Your task to perform on an android device: Go to display settings Image 0: 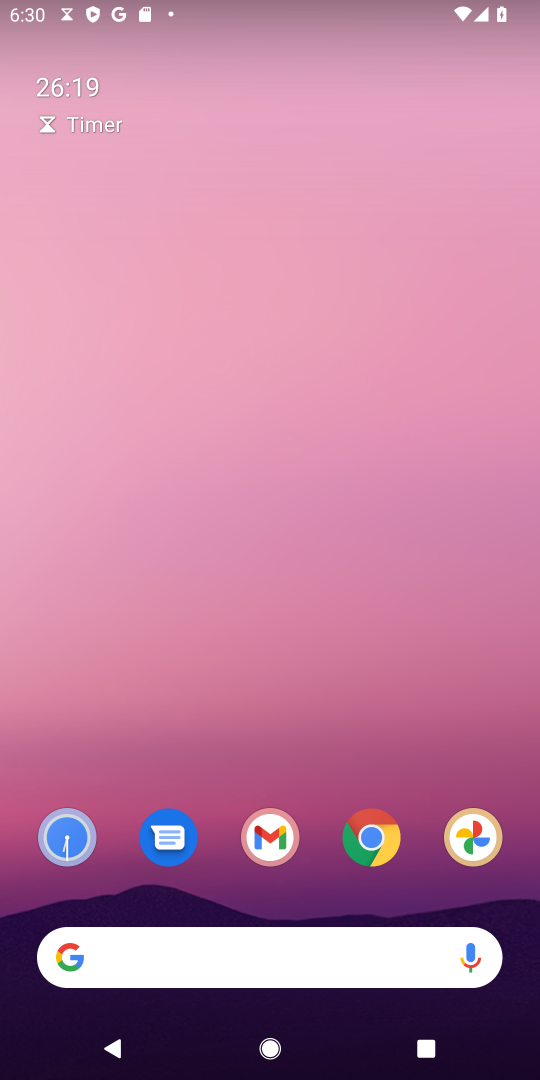
Step 0: press home button
Your task to perform on an android device: Go to display settings Image 1: 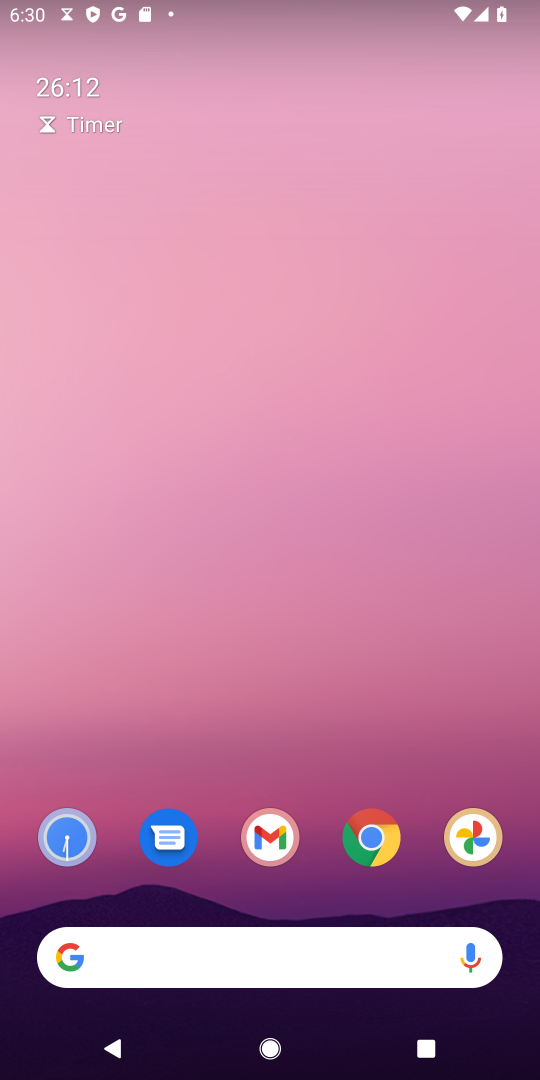
Step 1: drag from (323, 778) to (344, 47)
Your task to perform on an android device: Go to display settings Image 2: 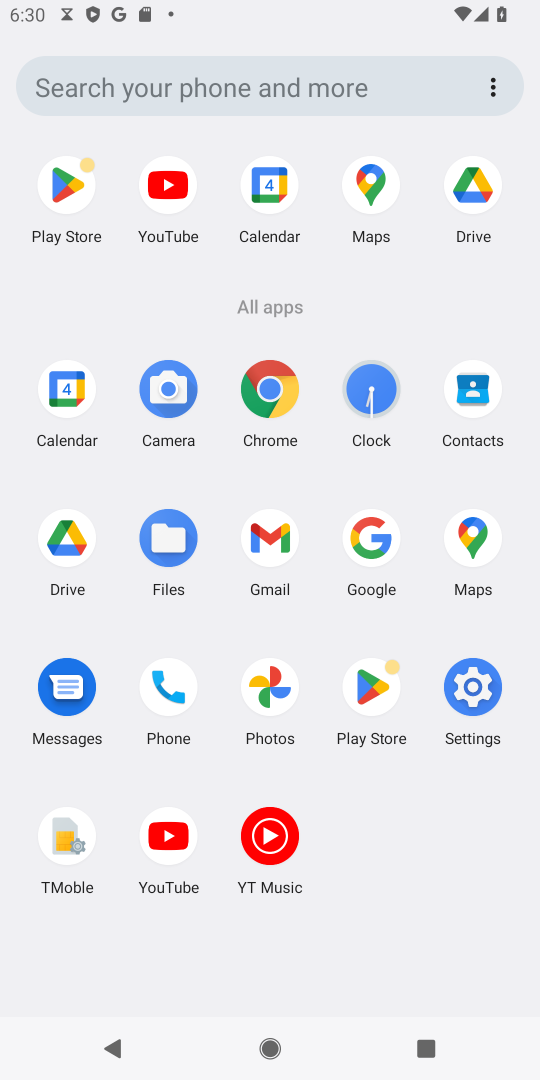
Step 2: click (469, 681)
Your task to perform on an android device: Go to display settings Image 3: 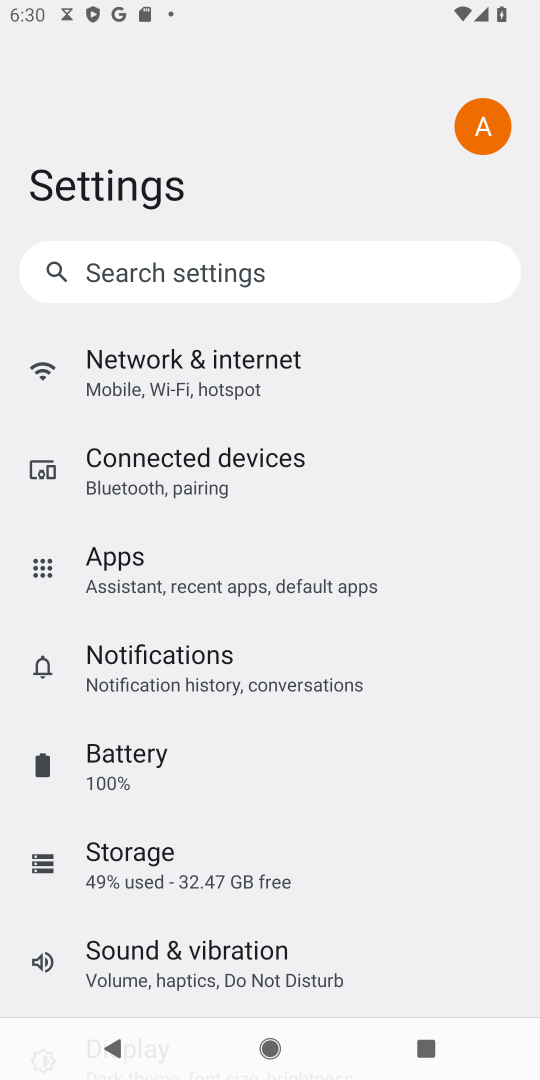
Step 3: drag from (245, 859) to (299, 303)
Your task to perform on an android device: Go to display settings Image 4: 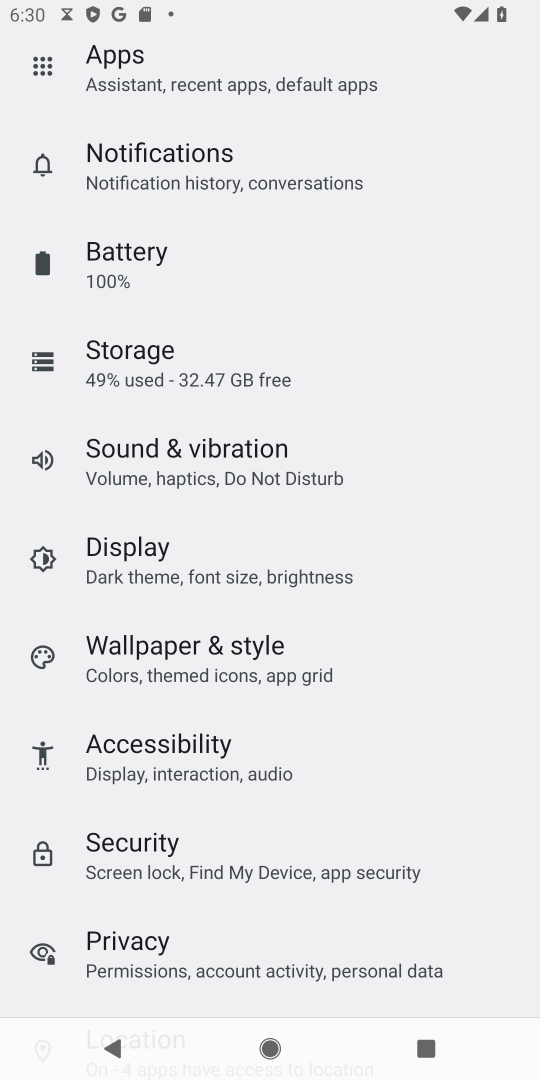
Step 4: click (194, 537)
Your task to perform on an android device: Go to display settings Image 5: 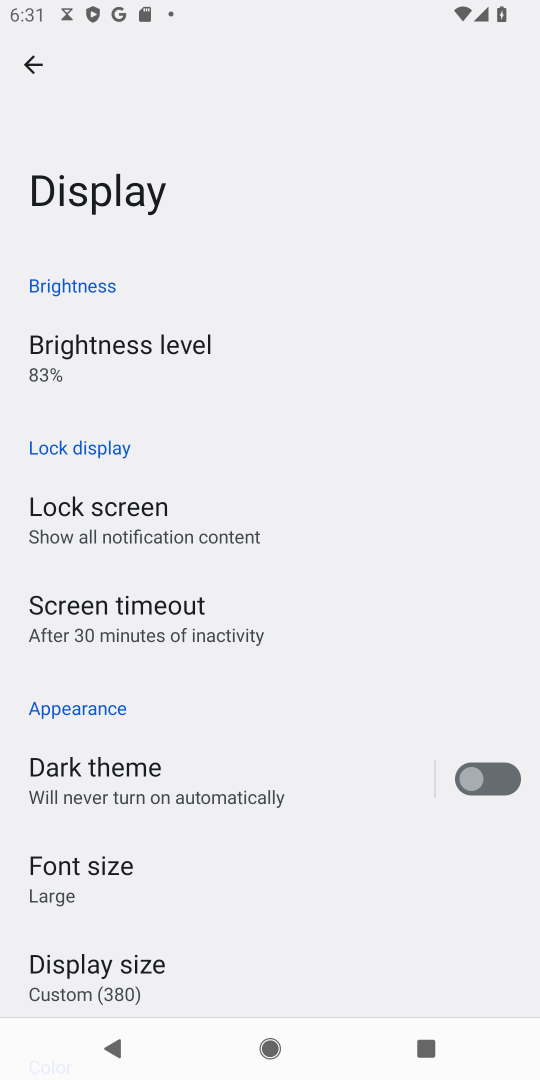
Step 5: task complete